Your task to perform on an android device: Go to location settings Image 0: 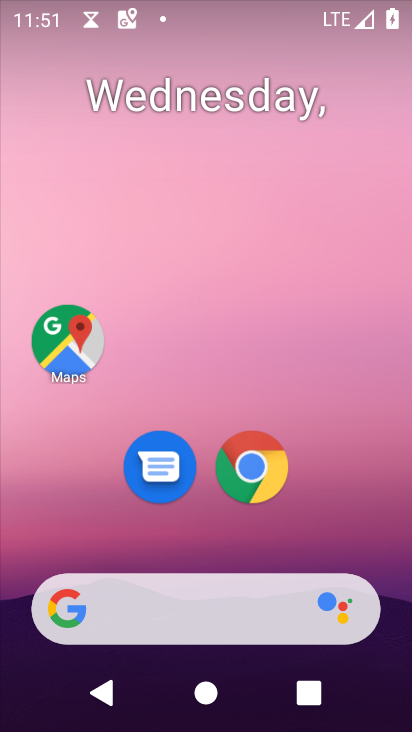
Step 0: drag from (158, 615) to (250, 283)
Your task to perform on an android device: Go to location settings Image 1: 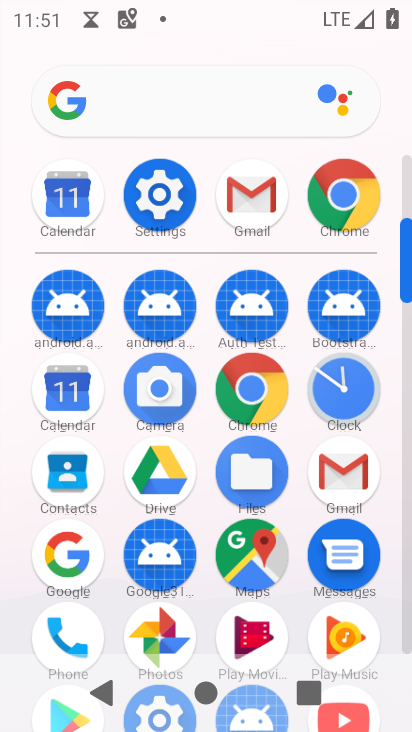
Step 1: click (147, 194)
Your task to perform on an android device: Go to location settings Image 2: 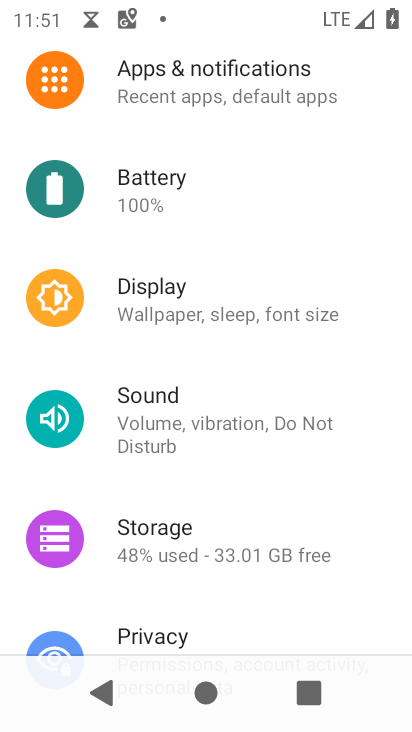
Step 2: drag from (291, 193) to (372, 165)
Your task to perform on an android device: Go to location settings Image 3: 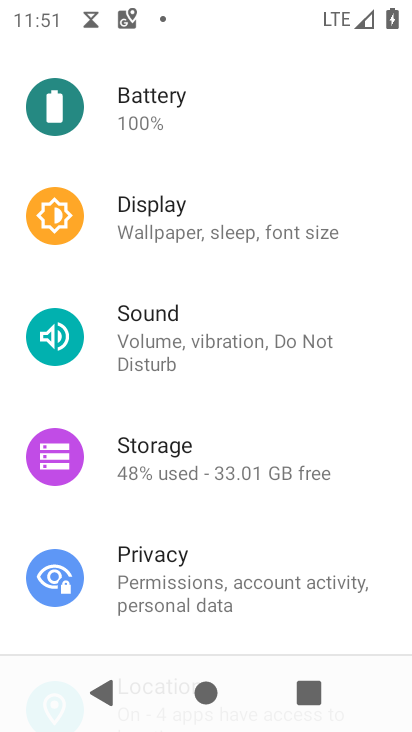
Step 3: drag from (221, 558) to (326, 220)
Your task to perform on an android device: Go to location settings Image 4: 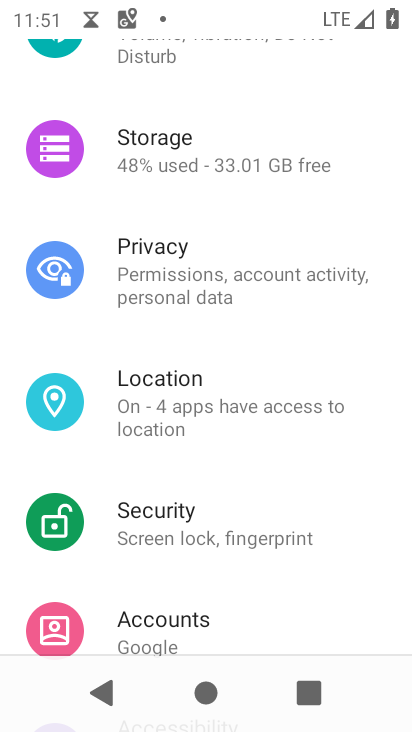
Step 4: click (198, 385)
Your task to perform on an android device: Go to location settings Image 5: 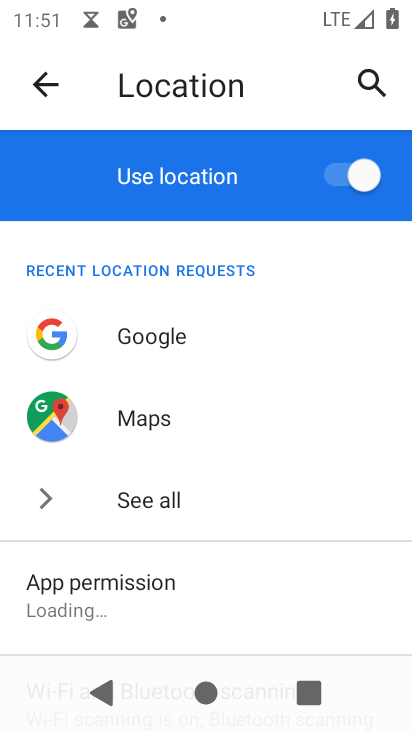
Step 5: task complete